Your task to perform on an android device: open a bookmark in the chrome app Image 0: 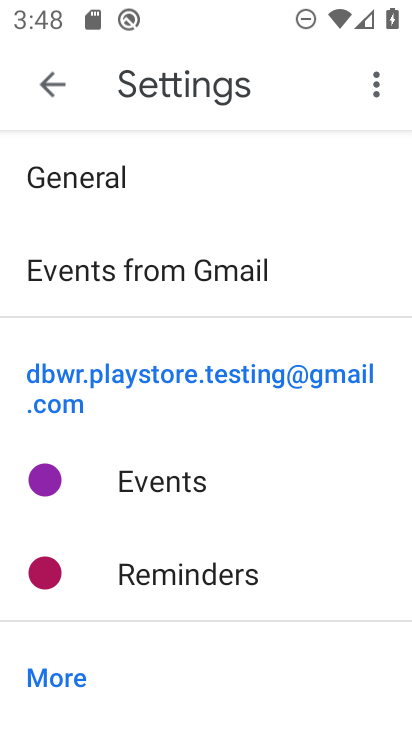
Step 0: press home button
Your task to perform on an android device: open a bookmark in the chrome app Image 1: 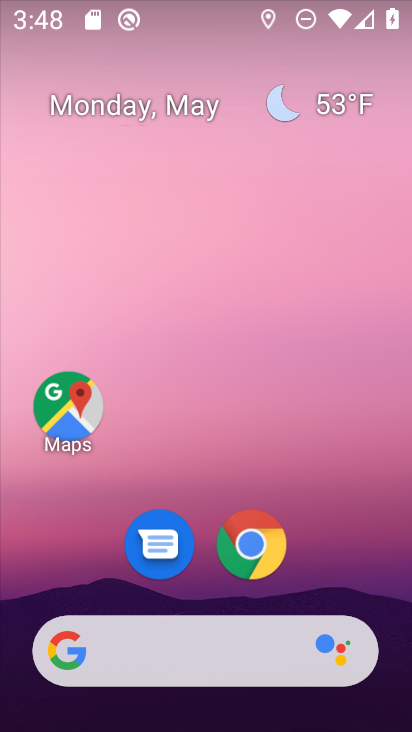
Step 1: click (250, 547)
Your task to perform on an android device: open a bookmark in the chrome app Image 2: 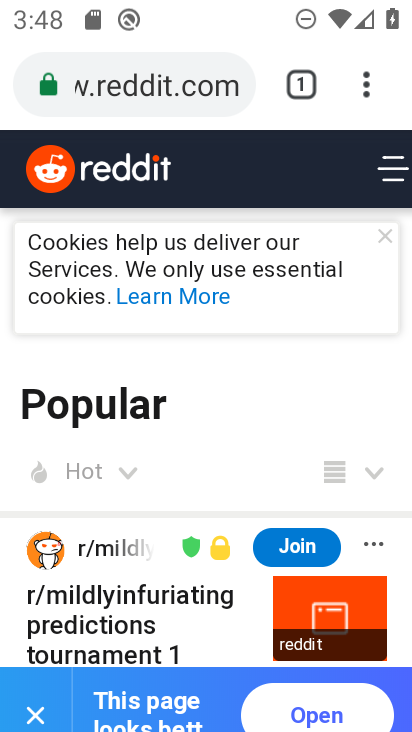
Step 2: click (365, 73)
Your task to perform on an android device: open a bookmark in the chrome app Image 3: 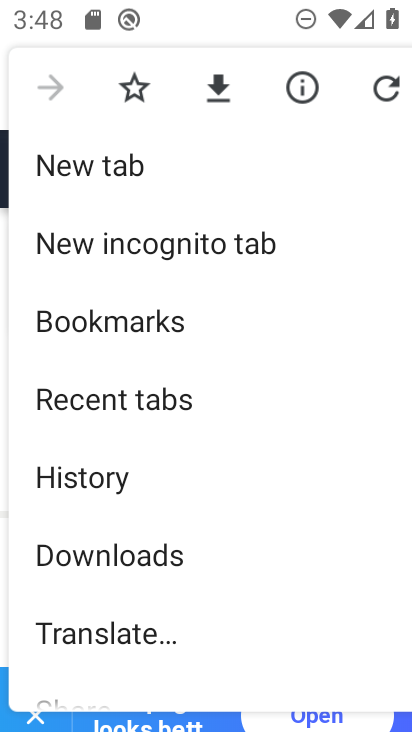
Step 3: click (147, 334)
Your task to perform on an android device: open a bookmark in the chrome app Image 4: 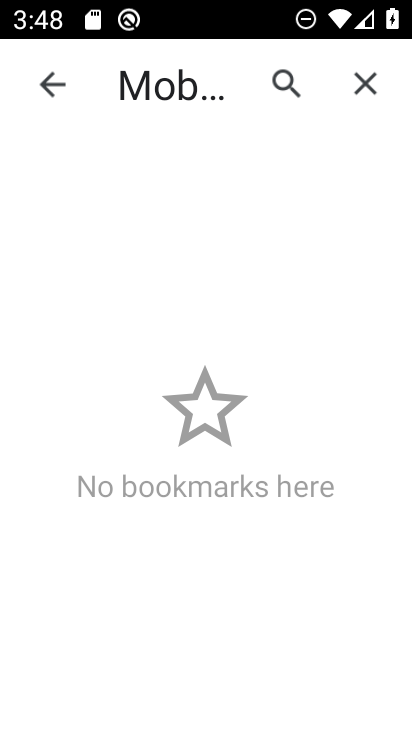
Step 4: task complete